Your task to perform on an android device: Open calendar and show me the second week of next month Image 0: 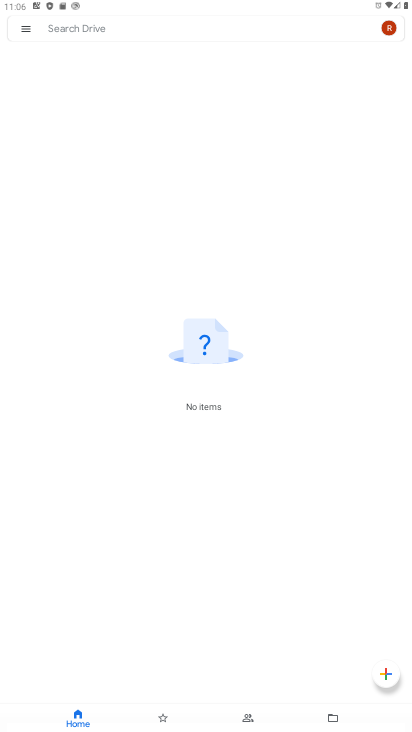
Step 0: press home button
Your task to perform on an android device: Open calendar and show me the second week of next month Image 1: 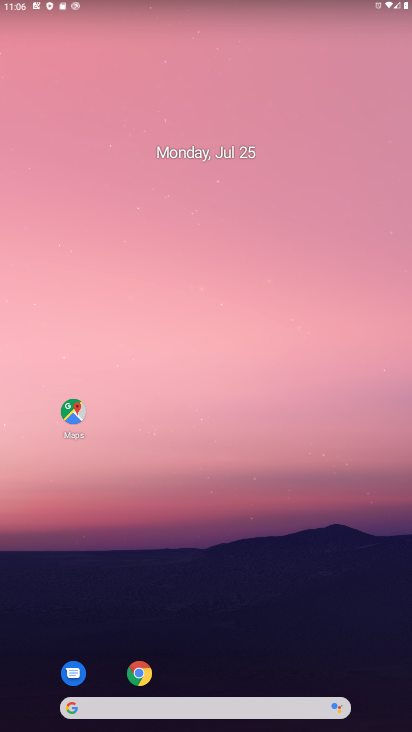
Step 1: drag from (238, 676) to (224, 22)
Your task to perform on an android device: Open calendar and show me the second week of next month Image 2: 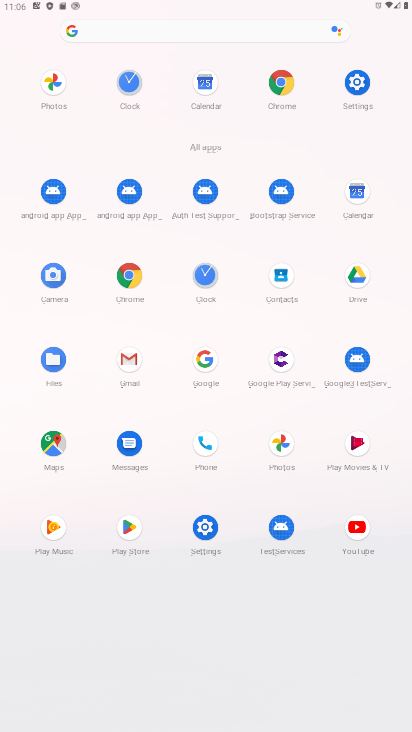
Step 2: click (353, 187)
Your task to perform on an android device: Open calendar and show me the second week of next month Image 3: 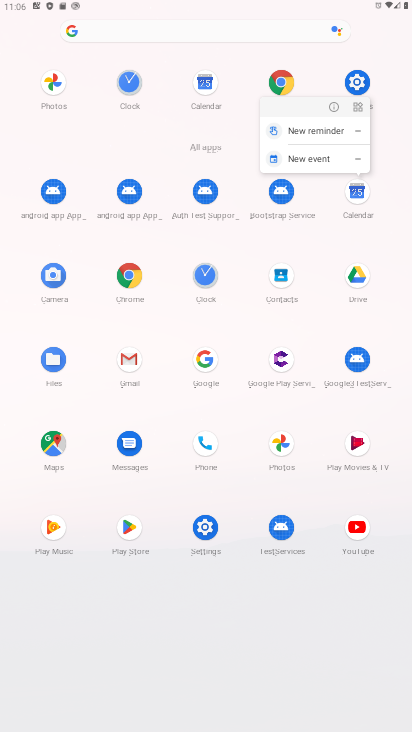
Step 3: click (357, 188)
Your task to perform on an android device: Open calendar and show me the second week of next month Image 4: 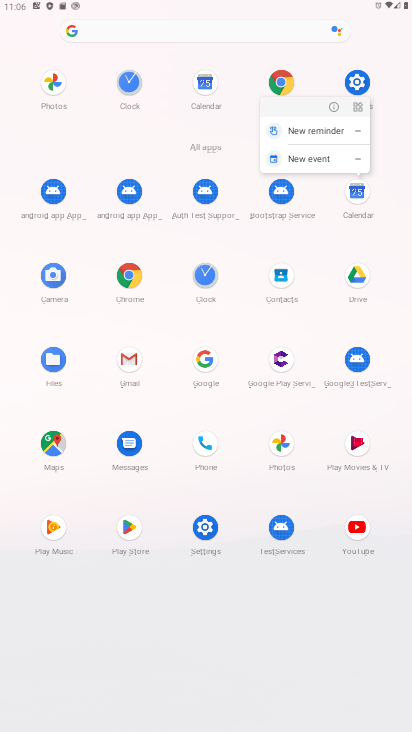
Step 4: click (355, 187)
Your task to perform on an android device: Open calendar and show me the second week of next month Image 5: 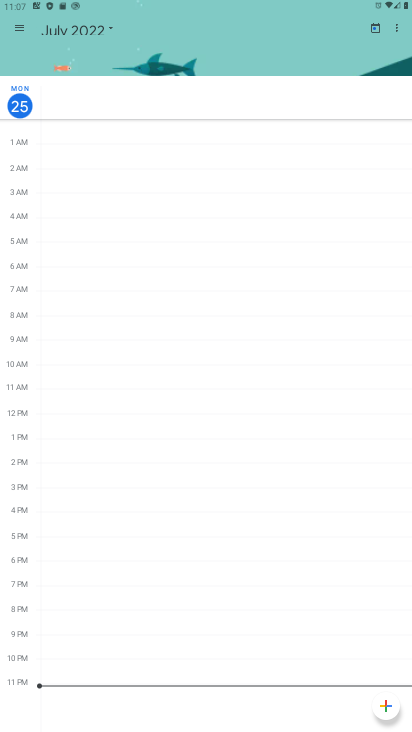
Step 5: click (98, 22)
Your task to perform on an android device: Open calendar and show me the second week of next month Image 6: 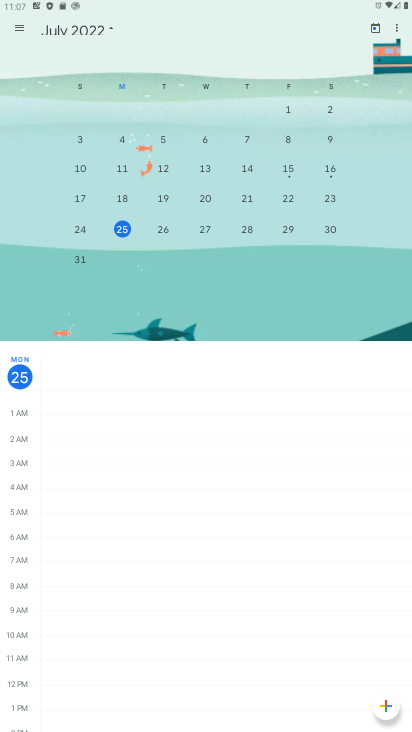
Step 6: drag from (289, 183) to (9, 235)
Your task to perform on an android device: Open calendar and show me the second week of next month Image 7: 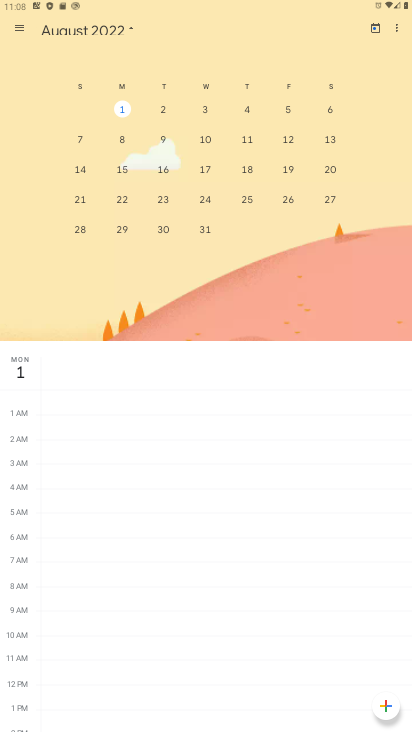
Step 7: click (77, 136)
Your task to perform on an android device: Open calendar and show me the second week of next month Image 8: 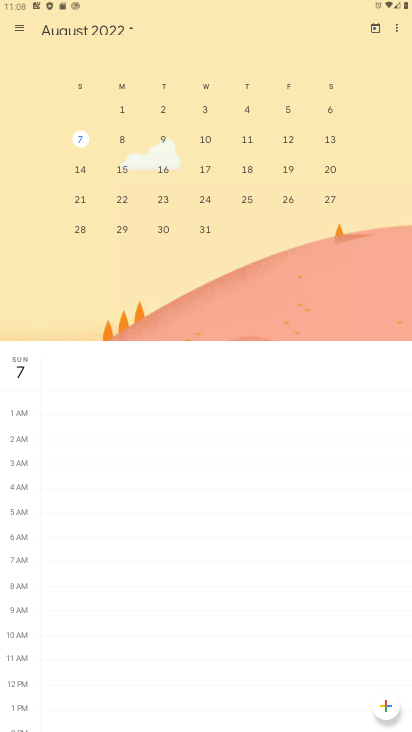
Step 8: click (21, 25)
Your task to perform on an android device: Open calendar and show me the second week of next month Image 9: 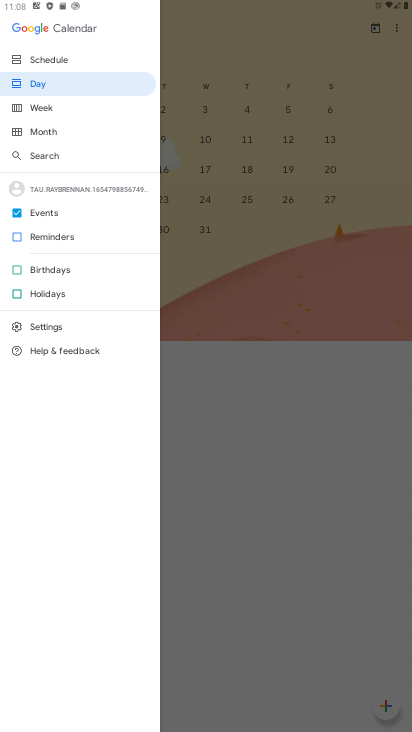
Step 9: click (45, 108)
Your task to perform on an android device: Open calendar and show me the second week of next month Image 10: 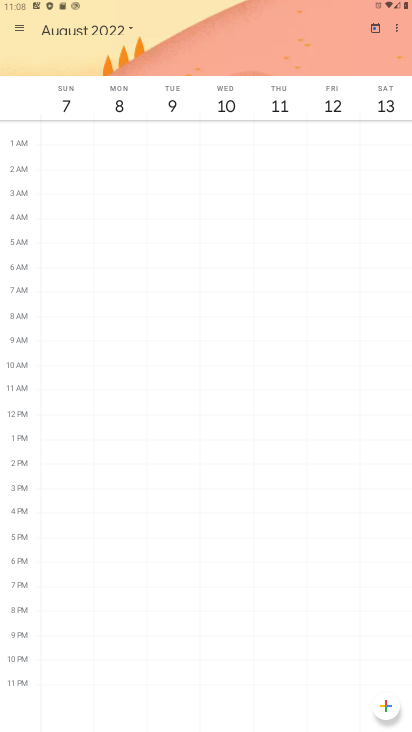
Step 10: task complete